Your task to perform on an android device: turn on translation in the chrome app Image 0: 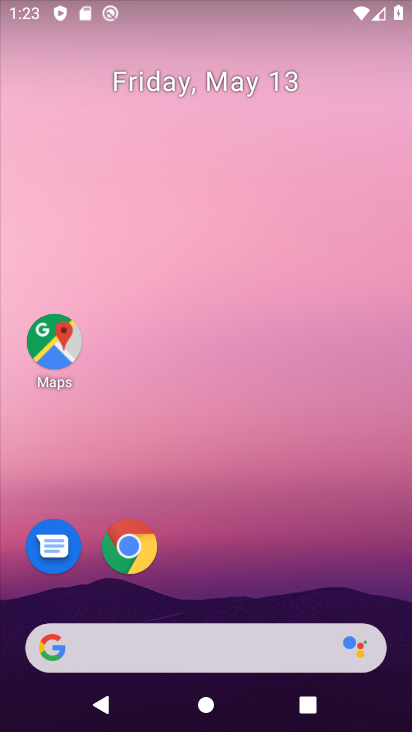
Step 0: click (138, 545)
Your task to perform on an android device: turn on translation in the chrome app Image 1: 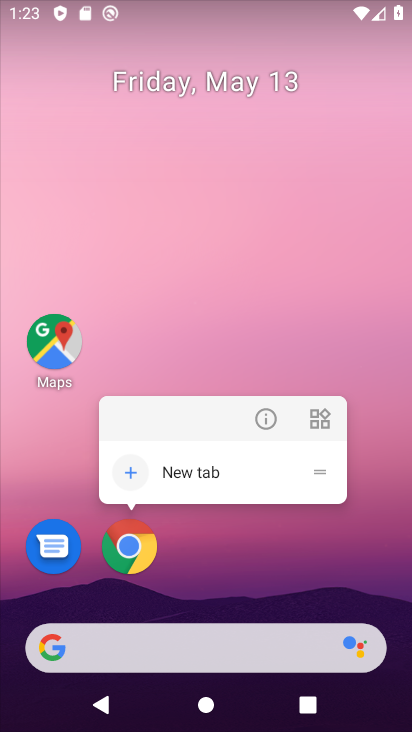
Step 1: click (120, 555)
Your task to perform on an android device: turn on translation in the chrome app Image 2: 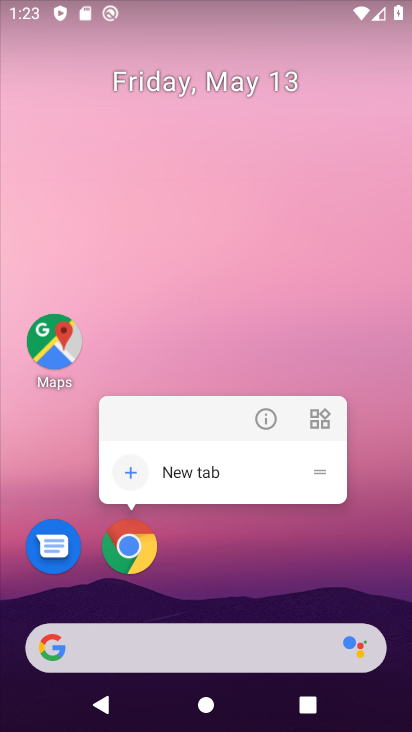
Step 2: click (136, 551)
Your task to perform on an android device: turn on translation in the chrome app Image 3: 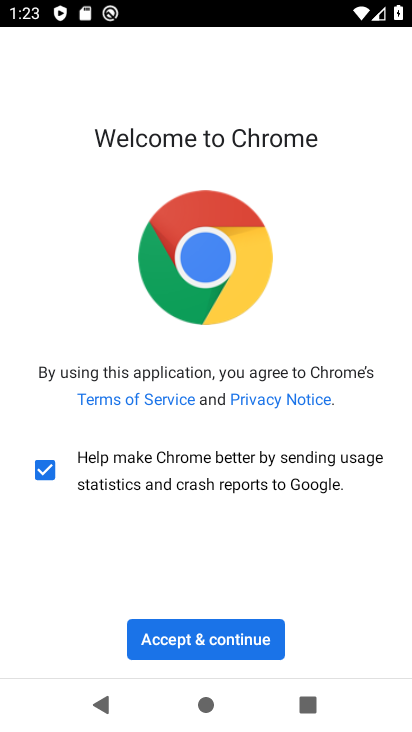
Step 3: click (216, 635)
Your task to perform on an android device: turn on translation in the chrome app Image 4: 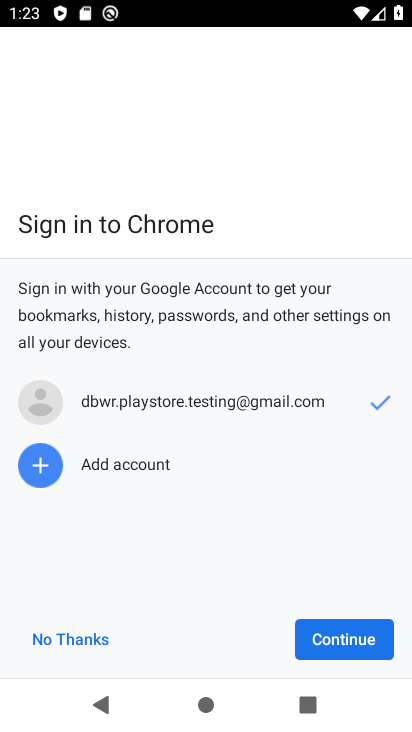
Step 4: click (342, 636)
Your task to perform on an android device: turn on translation in the chrome app Image 5: 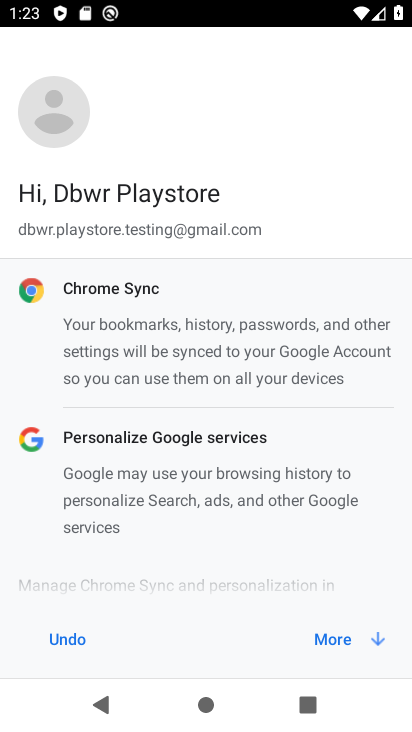
Step 5: click (363, 656)
Your task to perform on an android device: turn on translation in the chrome app Image 6: 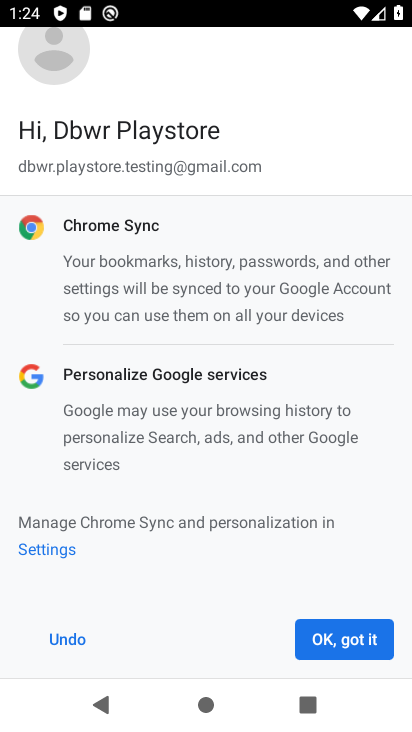
Step 6: click (337, 643)
Your task to perform on an android device: turn on translation in the chrome app Image 7: 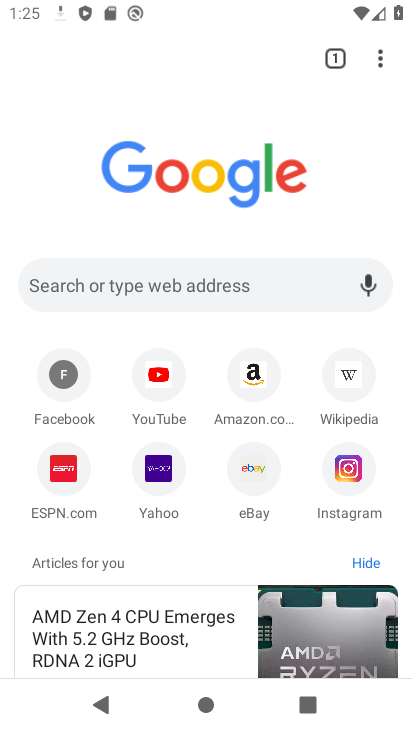
Step 7: click (387, 51)
Your task to perform on an android device: turn on translation in the chrome app Image 8: 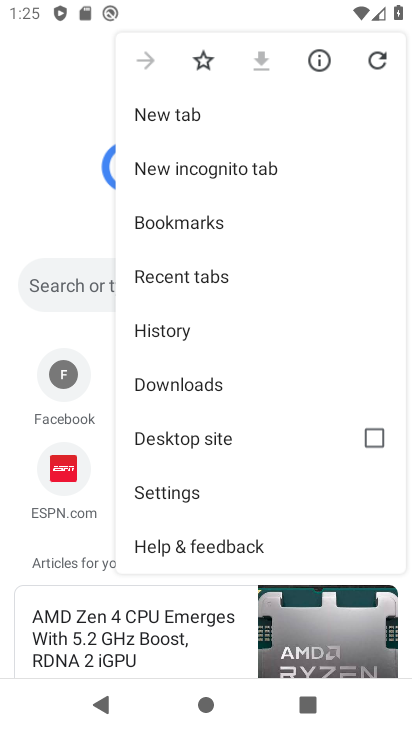
Step 8: click (162, 491)
Your task to perform on an android device: turn on translation in the chrome app Image 9: 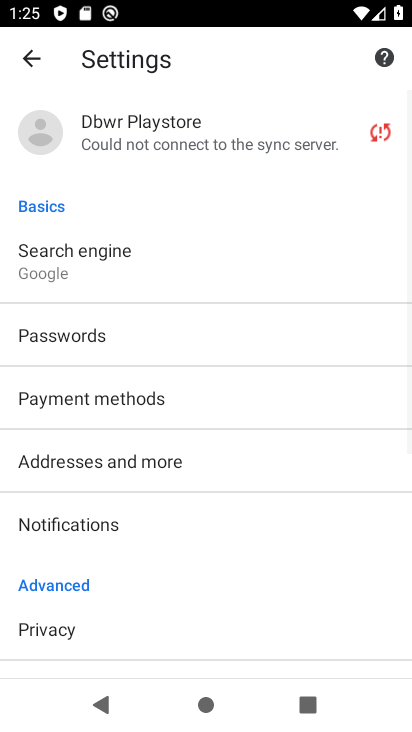
Step 9: drag from (118, 577) to (164, 177)
Your task to perform on an android device: turn on translation in the chrome app Image 10: 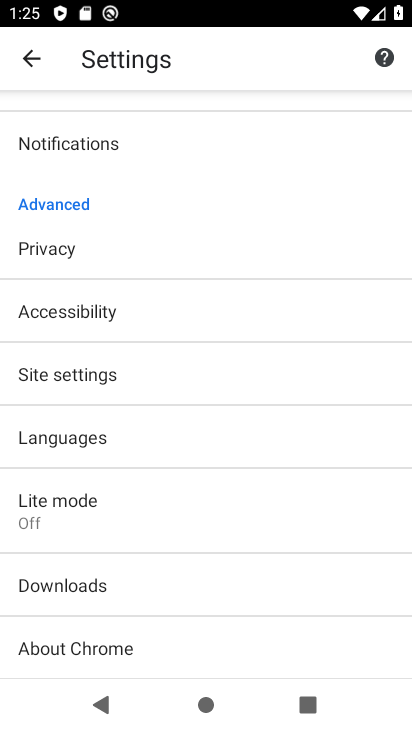
Step 10: click (115, 448)
Your task to perform on an android device: turn on translation in the chrome app Image 11: 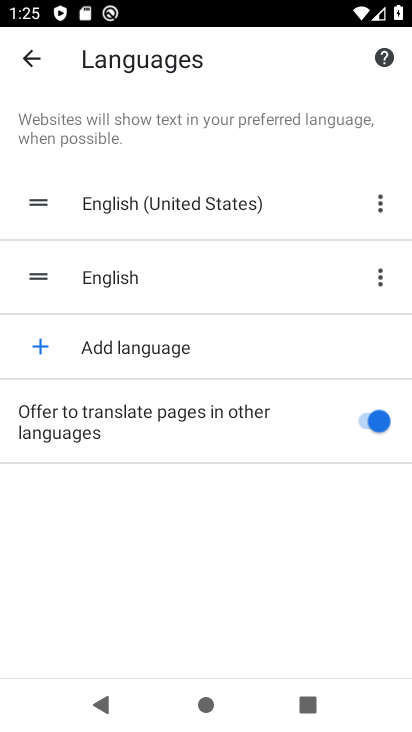
Step 11: task complete